Your task to perform on an android device: find photos in the google photos app Image 0: 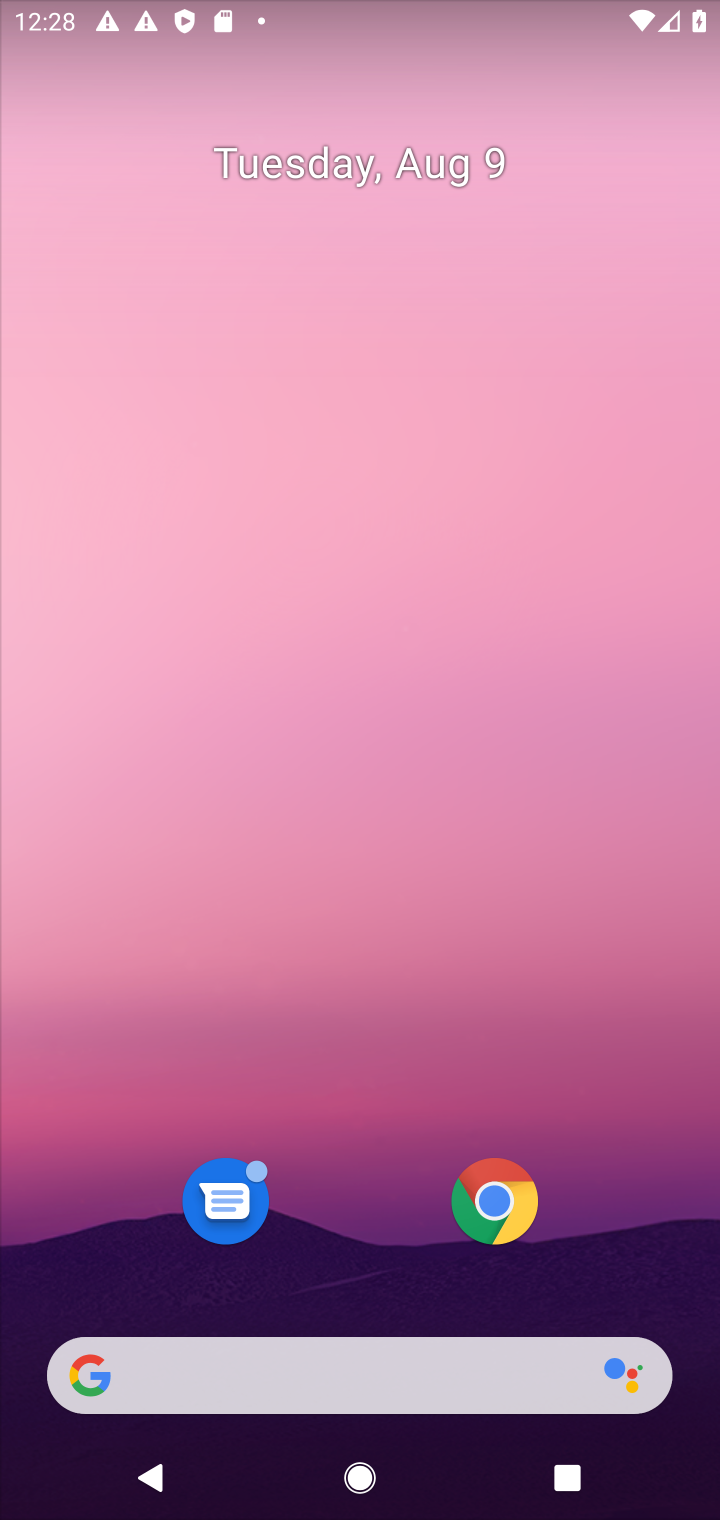
Step 0: drag from (374, 795) to (426, 4)
Your task to perform on an android device: find photos in the google photos app Image 1: 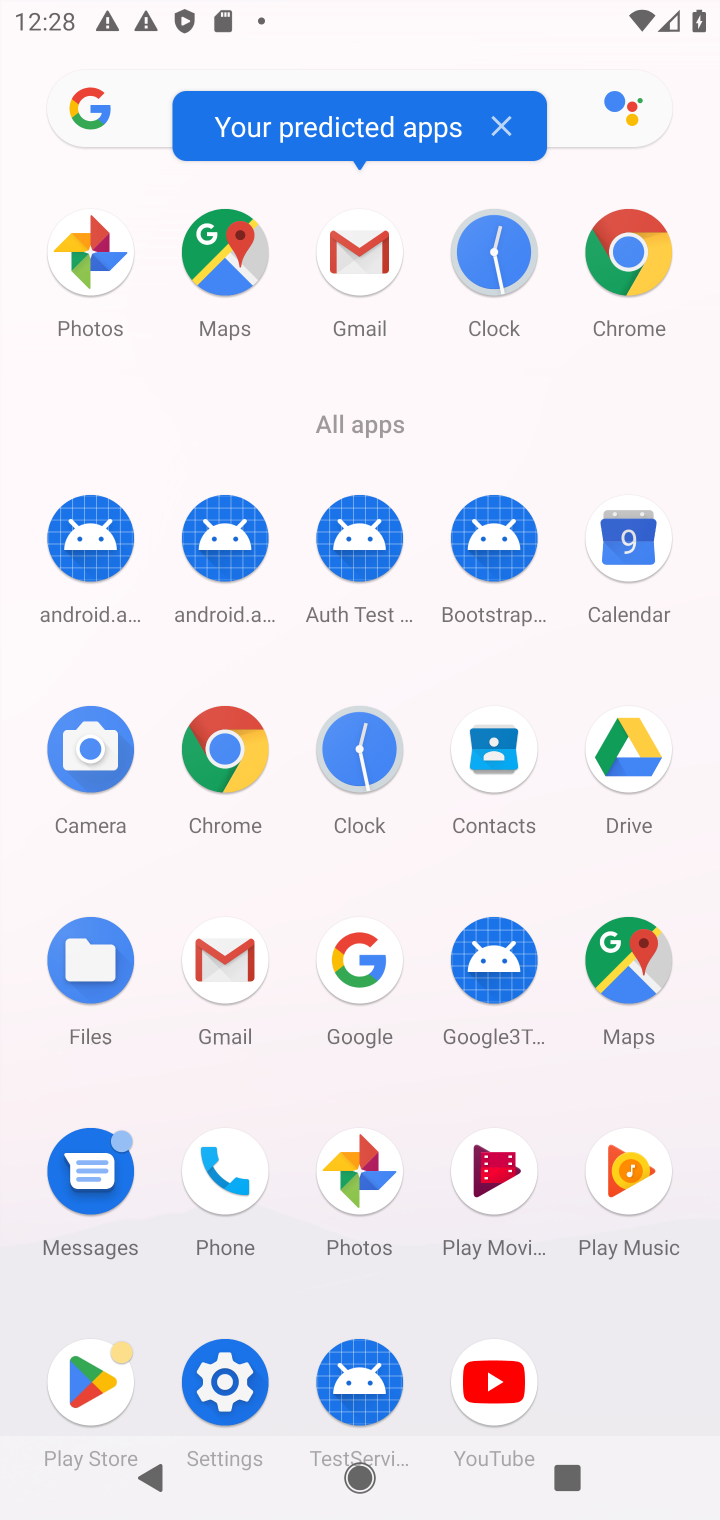
Step 1: click (353, 1194)
Your task to perform on an android device: find photos in the google photos app Image 2: 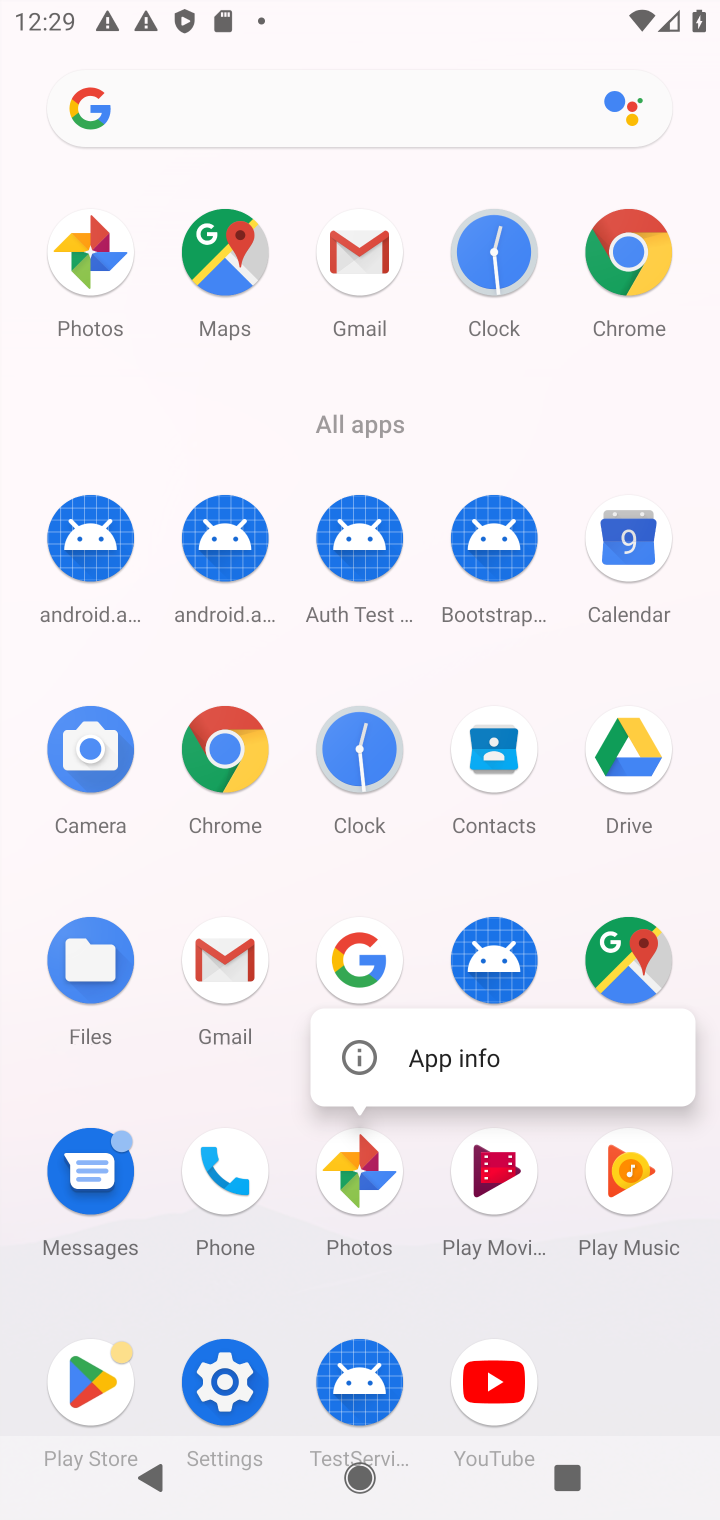
Step 2: click (355, 1192)
Your task to perform on an android device: find photos in the google photos app Image 3: 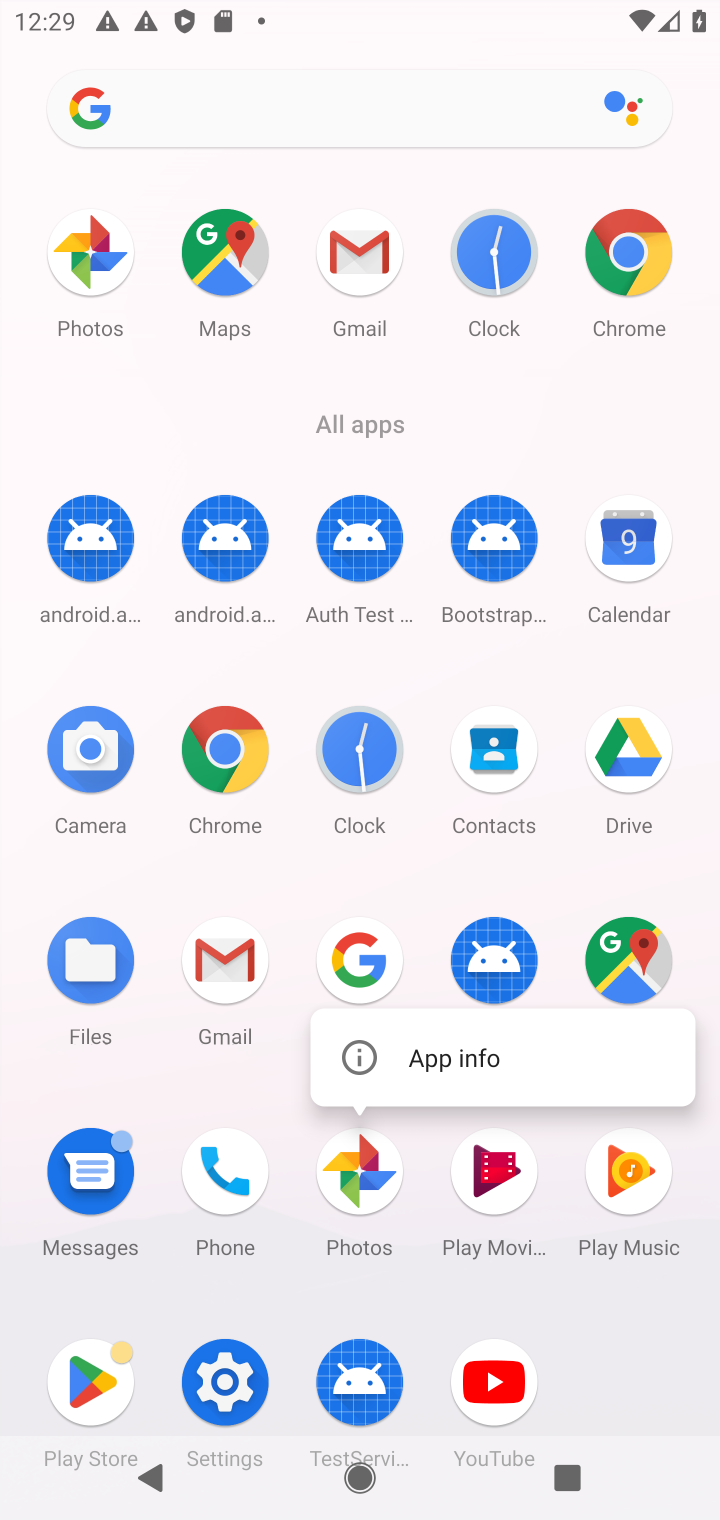
Step 3: click (355, 1192)
Your task to perform on an android device: find photos in the google photos app Image 4: 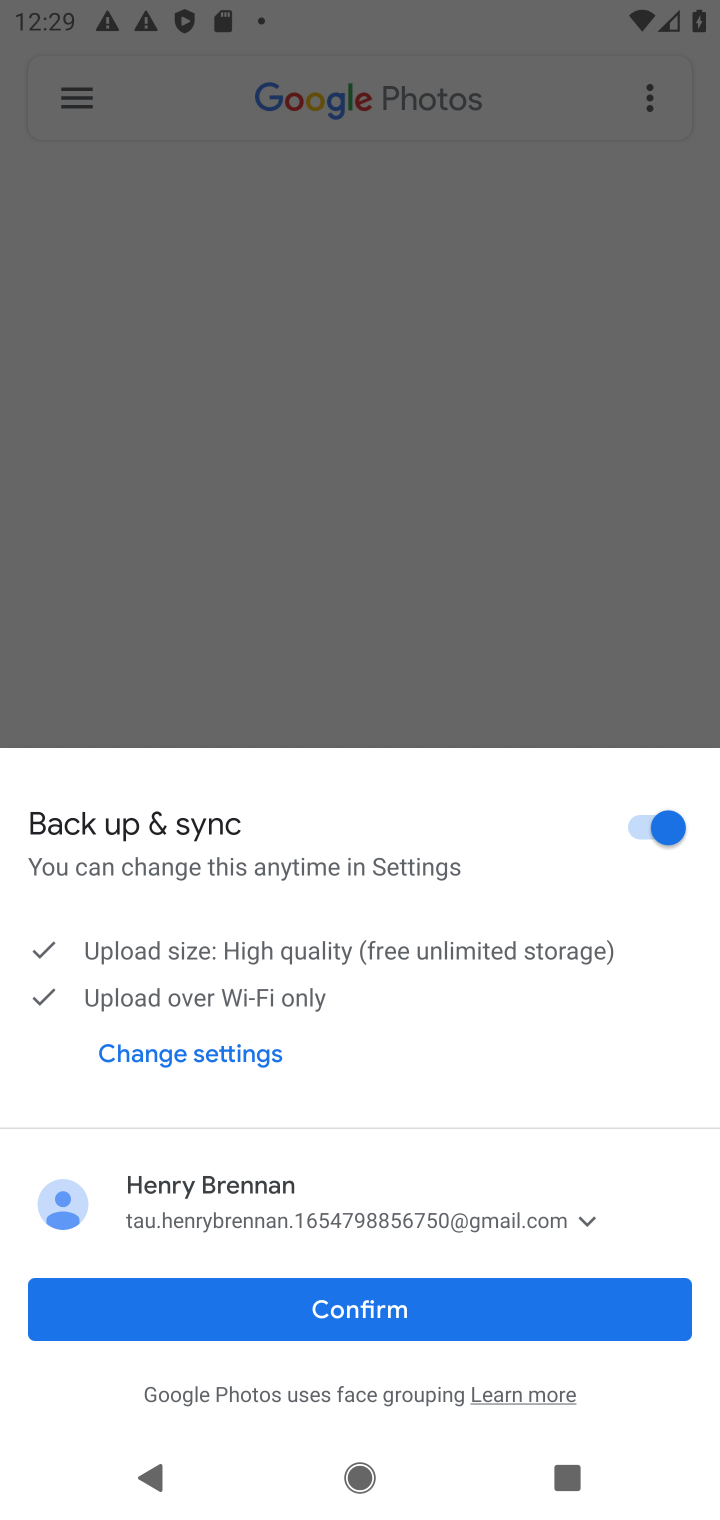
Step 4: click (383, 1299)
Your task to perform on an android device: find photos in the google photos app Image 5: 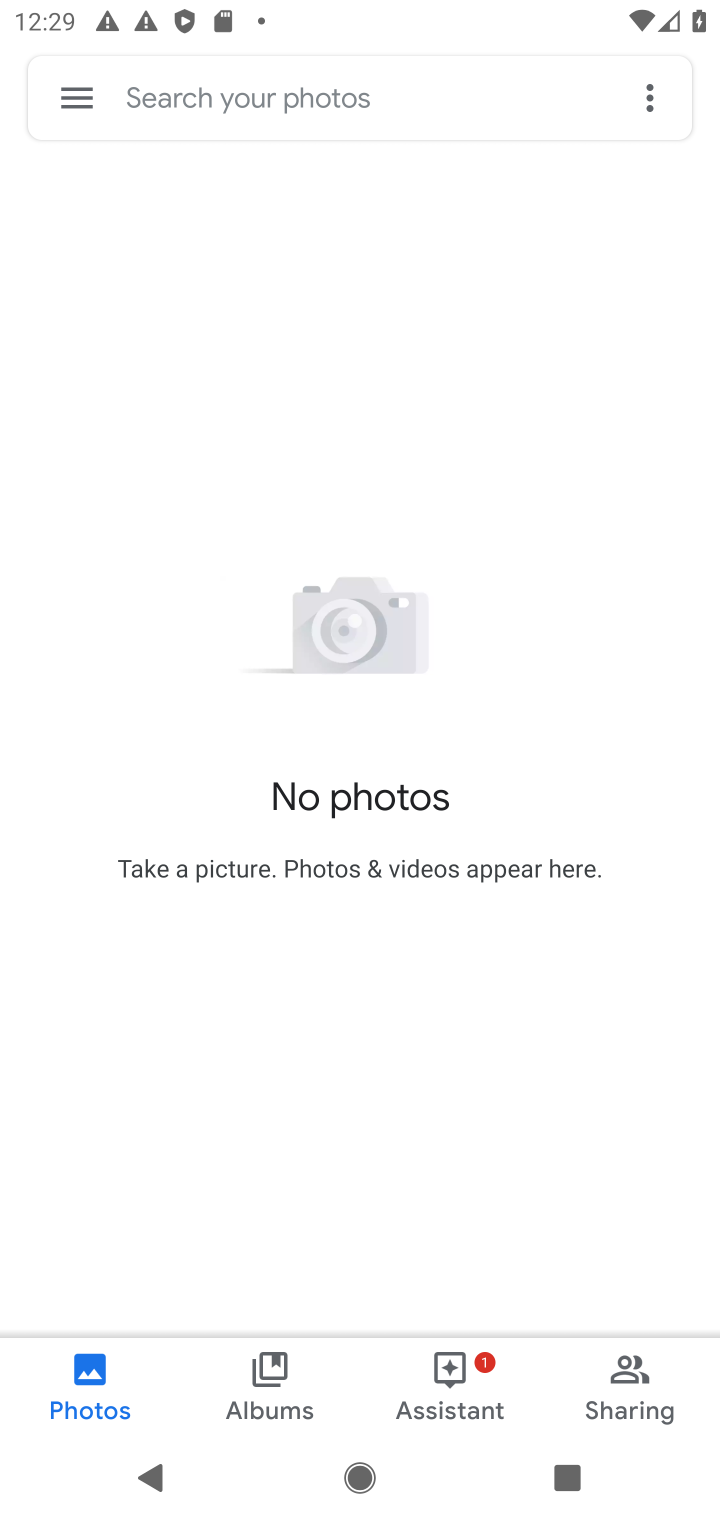
Step 5: task complete